Your task to perform on an android device: Do I have any events this weekend? Image 0: 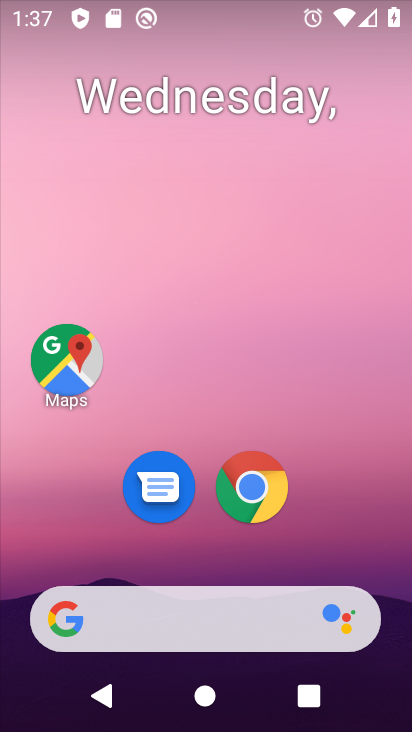
Step 0: drag from (394, 611) to (272, 54)
Your task to perform on an android device: Do I have any events this weekend? Image 1: 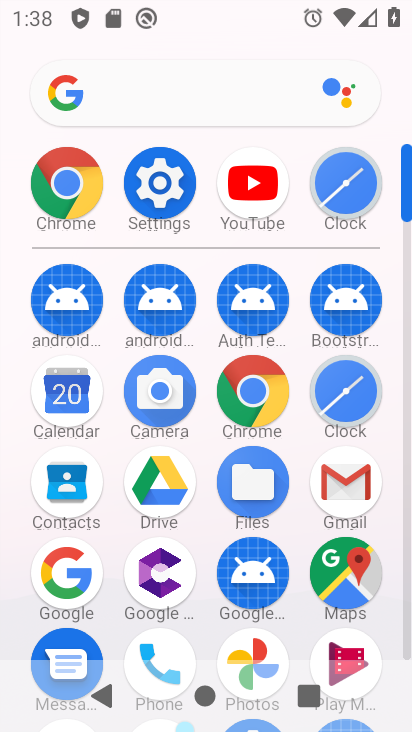
Step 1: click (79, 396)
Your task to perform on an android device: Do I have any events this weekend? Image 2: 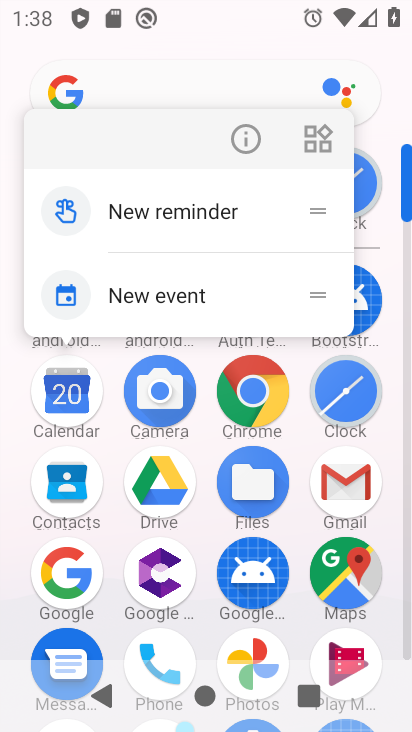
Step 2: click (76, 399)
Your task to perform on an android device: Do I have any events this weekend? Image 3: 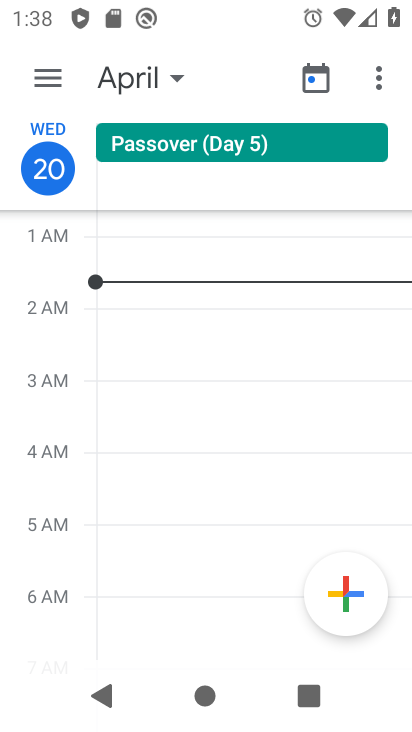
Step 3: task complete